Your task to perform on an android device: Check out the best rated electric trimmers on Lowe's Image 0: 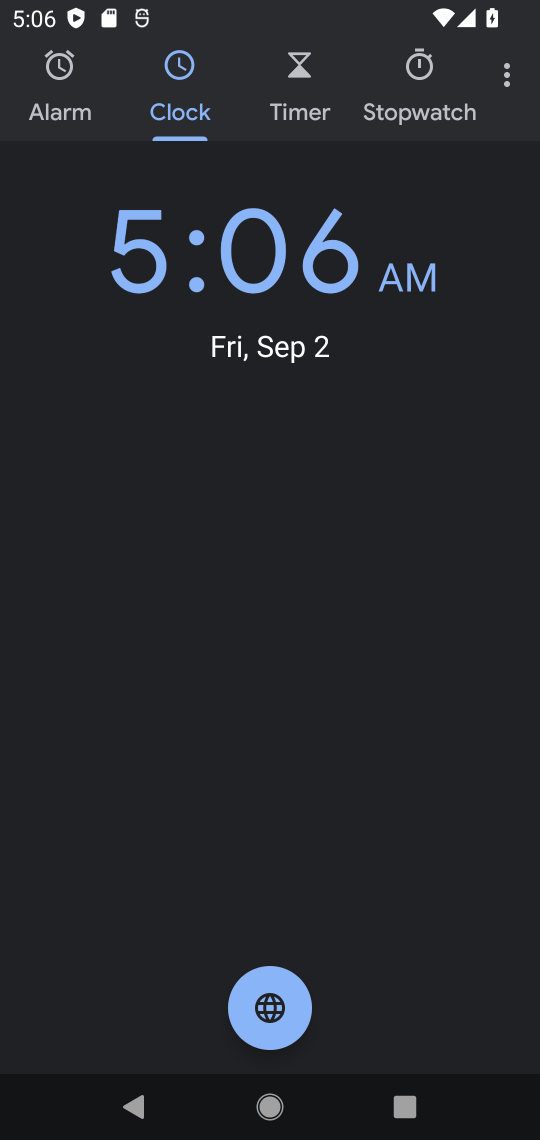
Step 0: press home button
Your task to perform on an android device: Check out the best rated electric trimmers on Lowe's Image 1: 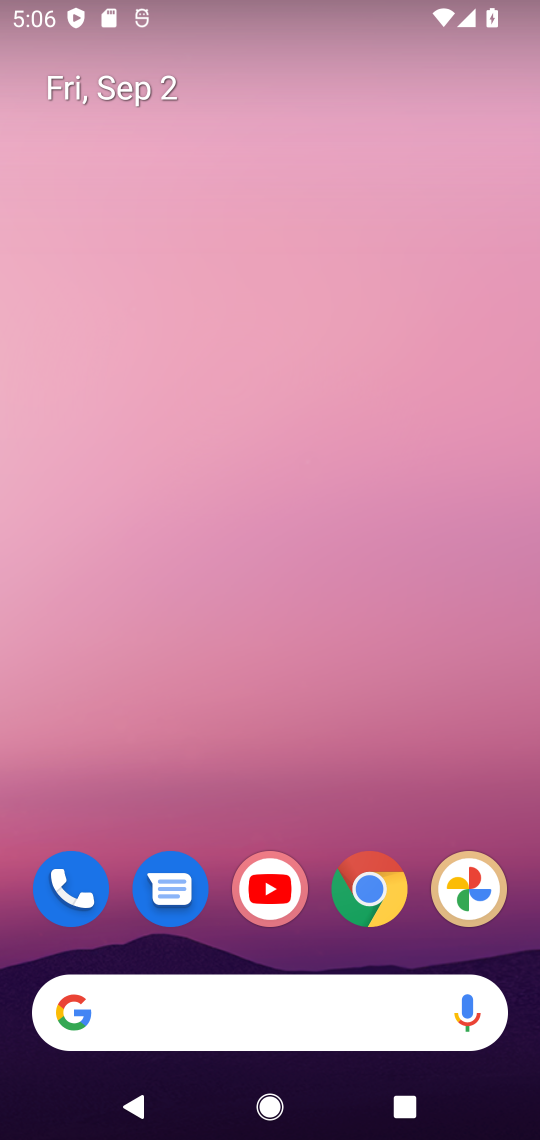
Step 1: click (350, 887)
Your task to perform on an android device: Check out the best rated electric trimmers on Lowe's Image 2: 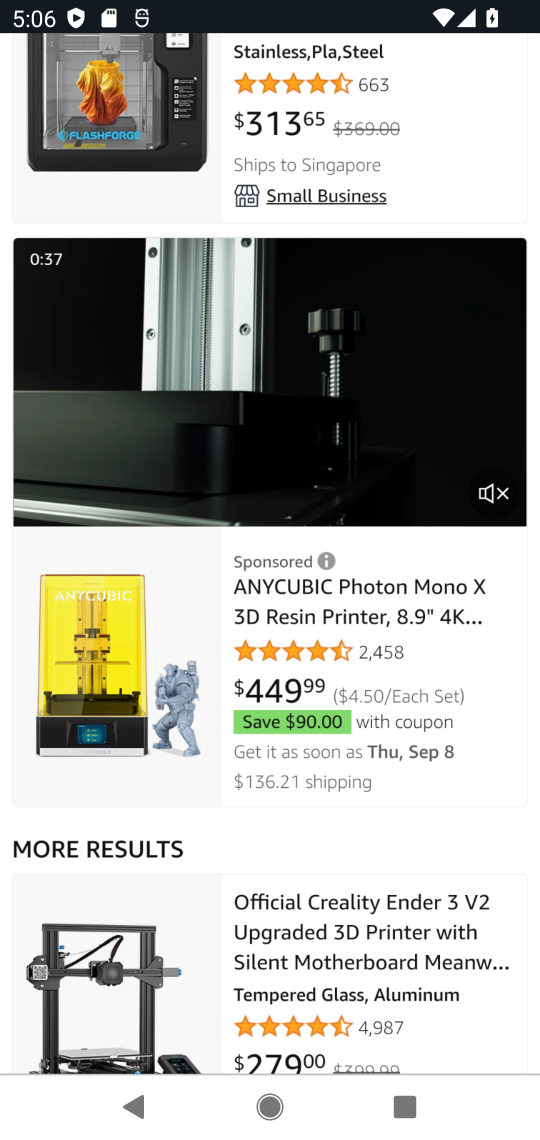
Step 2: drag from (422, 295) to (381, 758)
Your task to perform on an android device: Check out the best rated electric trimmers on Lowe's Image 3: 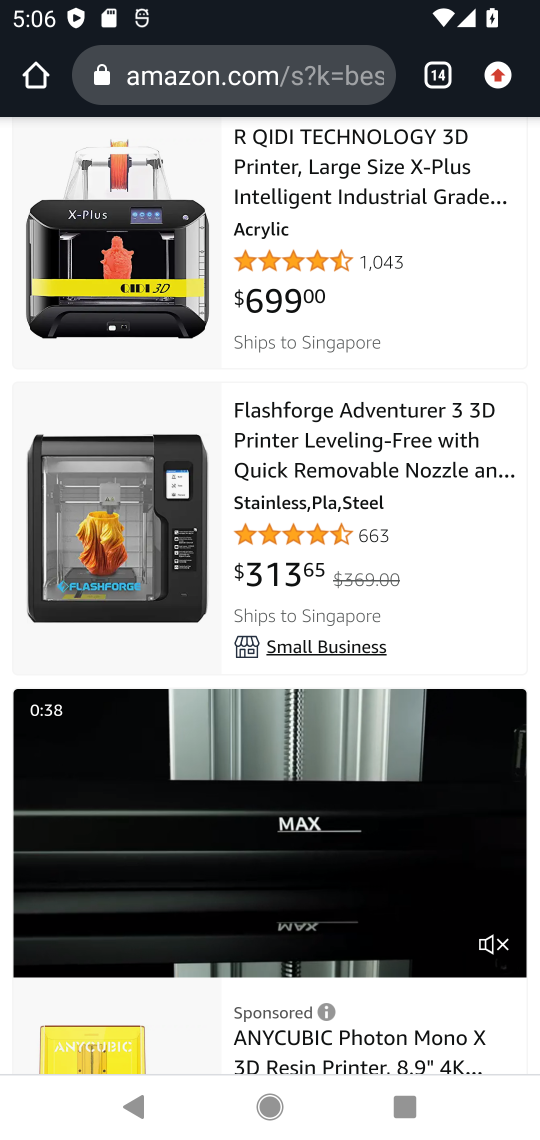
Step 3: click (441, 77)
Your task to perform on an android device: Check out the best rated electric trimmers on Lowe's Image 4: 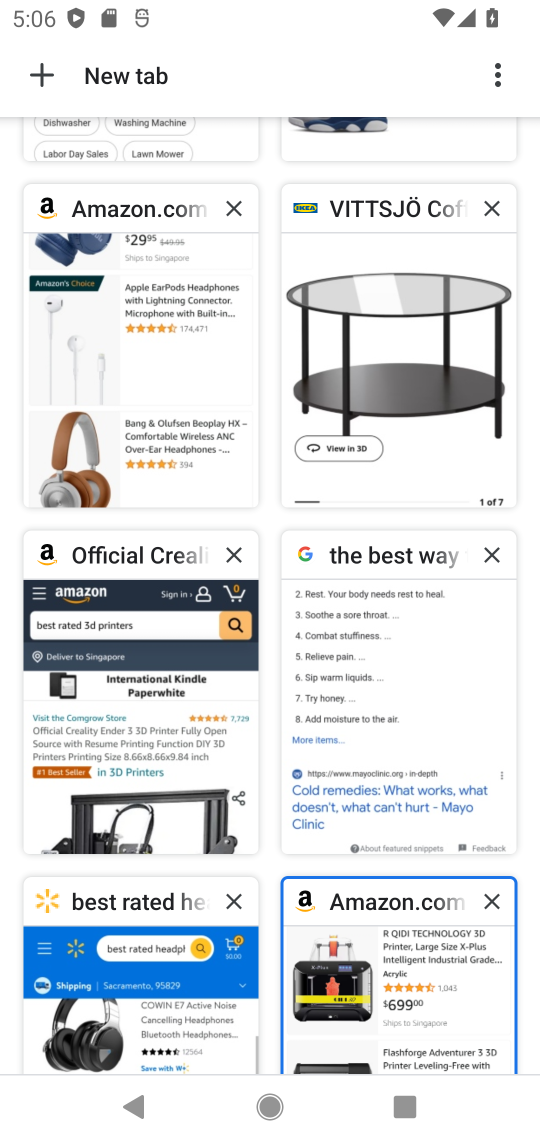
Step 4: click (39, 58)
Your task to perform on an android device: Check out the best rated electric trimmers on Lowe's Image 5: 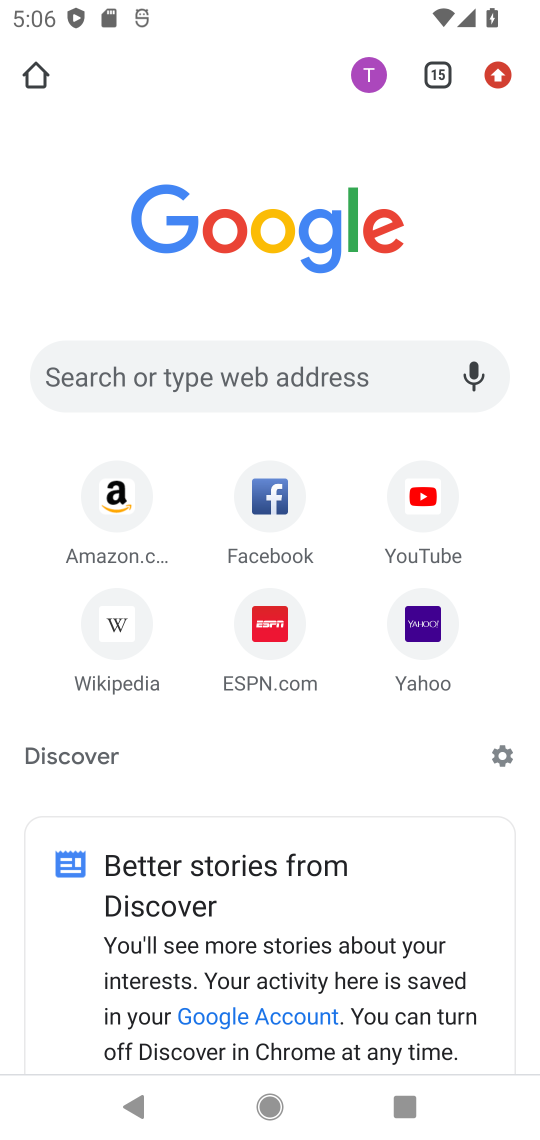
Step 5: type "Lowe's"
Your task to perform on an android device: Check out the best rated electric trimmers on Lowe's Image 6: 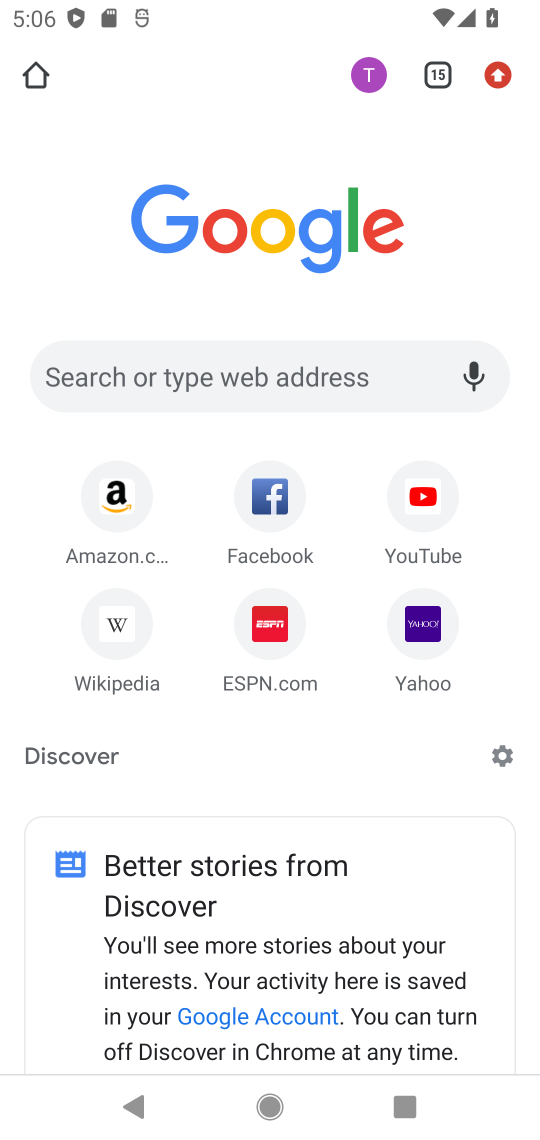
Step 6: type ""
Your task to perform on an android device: Check out the best rated electric trimmers on Lowe's Image 7: 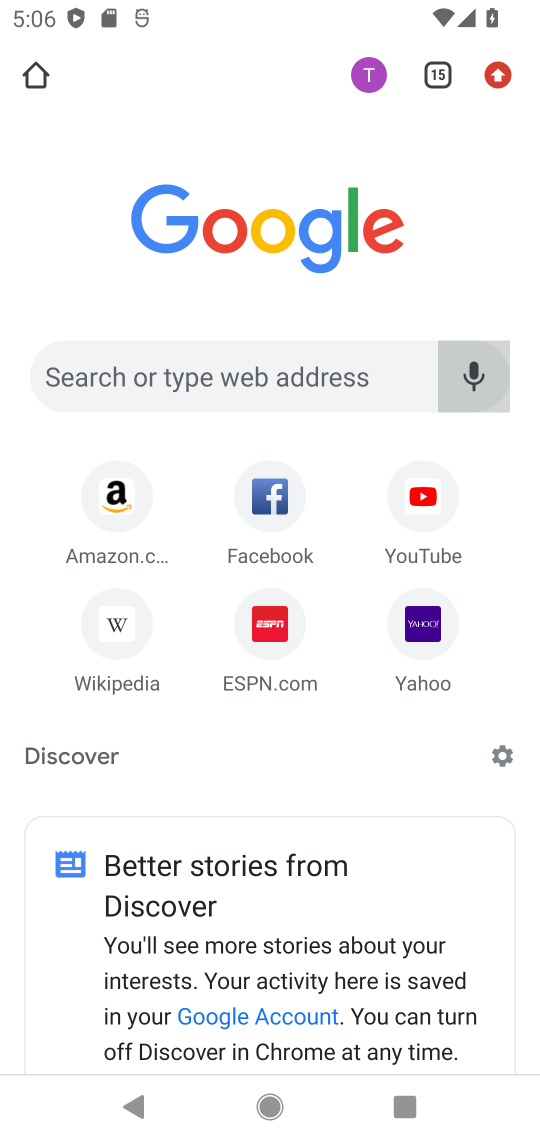
Step 7: click (240, 382)
Your task to perform on an android device: Check out the best rated electric trimmers on Lowe's Image 8: 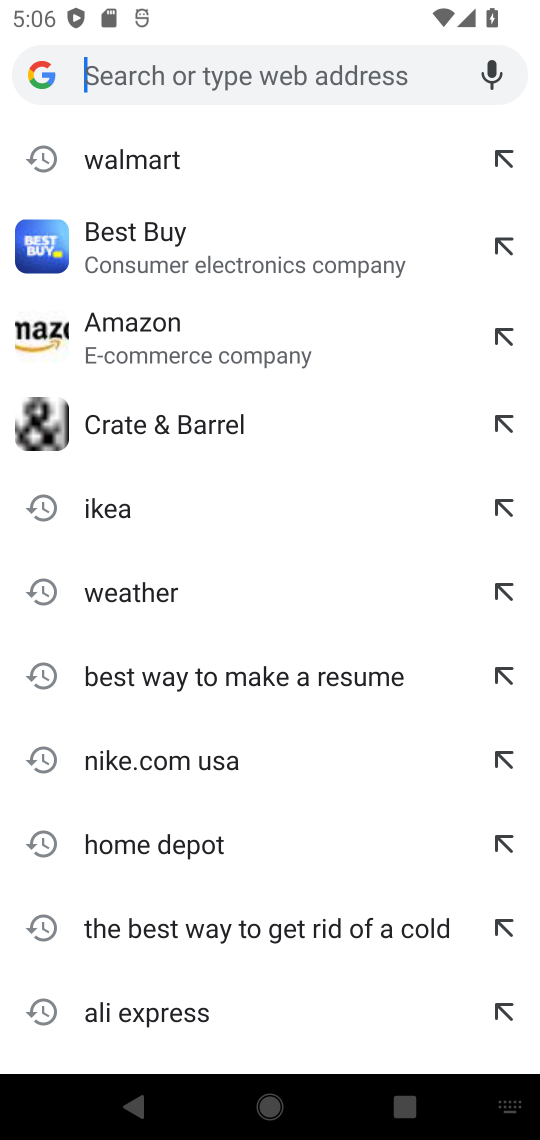
Step 8: type "Lowe's"
Your task to perform on an android device: Check out the best rated electric trimmers on Lowe's Image 9: 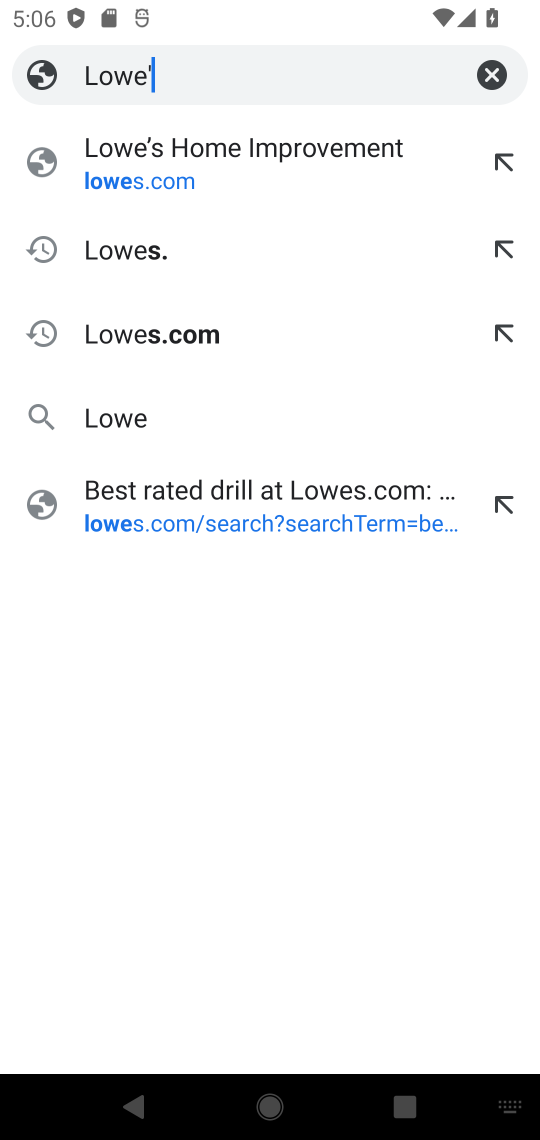
Step 9: type ""
Your task to perform on an android device: Check out the best rated electric trimmers on Lowe's Image 10: 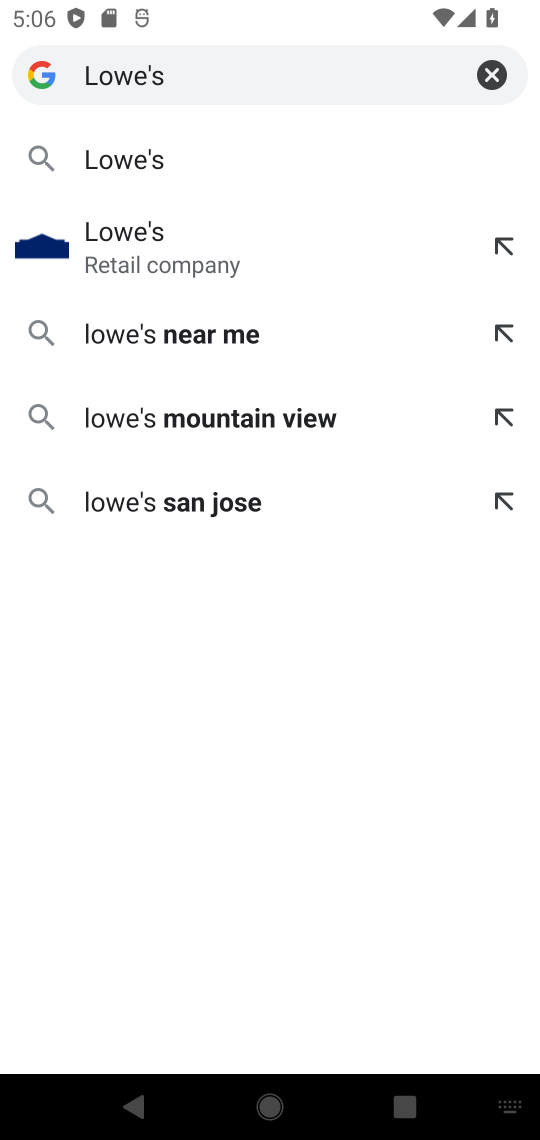
Step 10: click (187, 149)
Your task to perform on an android device: Check out the best rated electric trimmers on Lowe's Image 11: 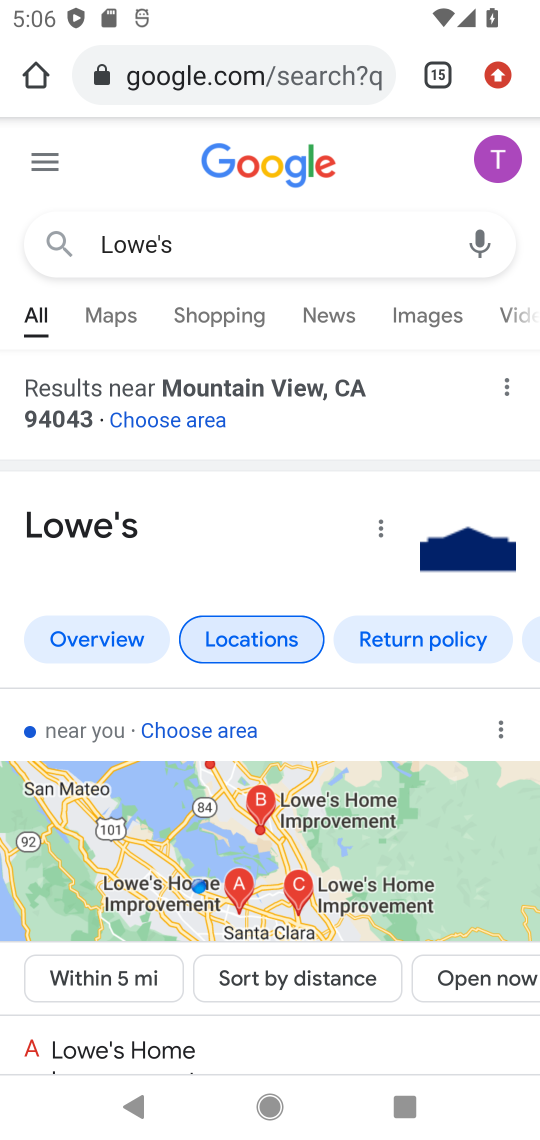
Step 11: drag from (336, 788) to (294, 291)
Your task to perform on an android device: Check out the best rated electric trimmers on Lowe's Image 12: 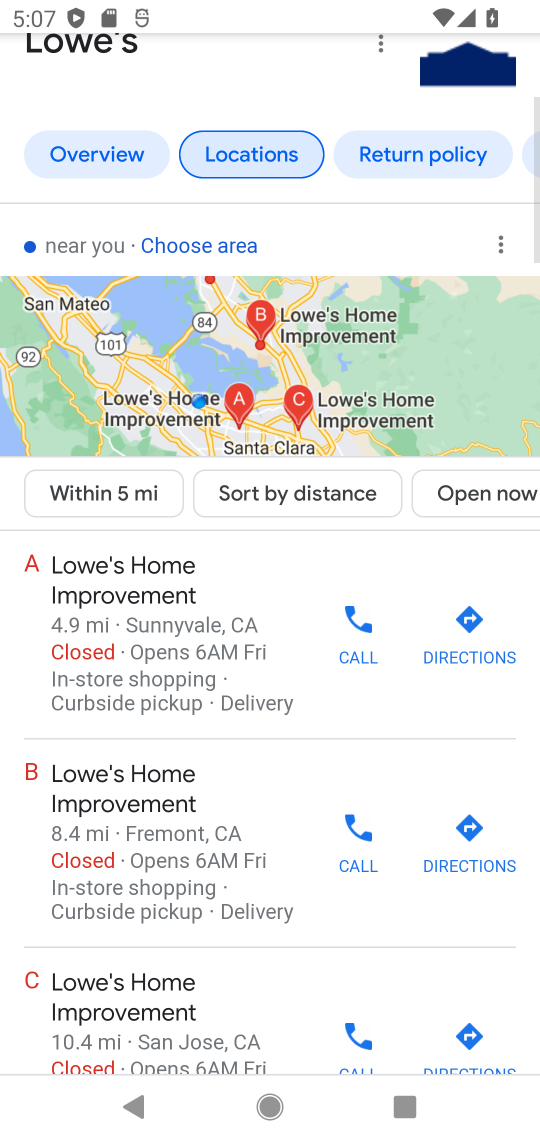
Step 12: drag from (256, 450) to (338, 242)
Your task to perform on an android device: Check out the best rated electric trimmers on Lowe's Image 13: 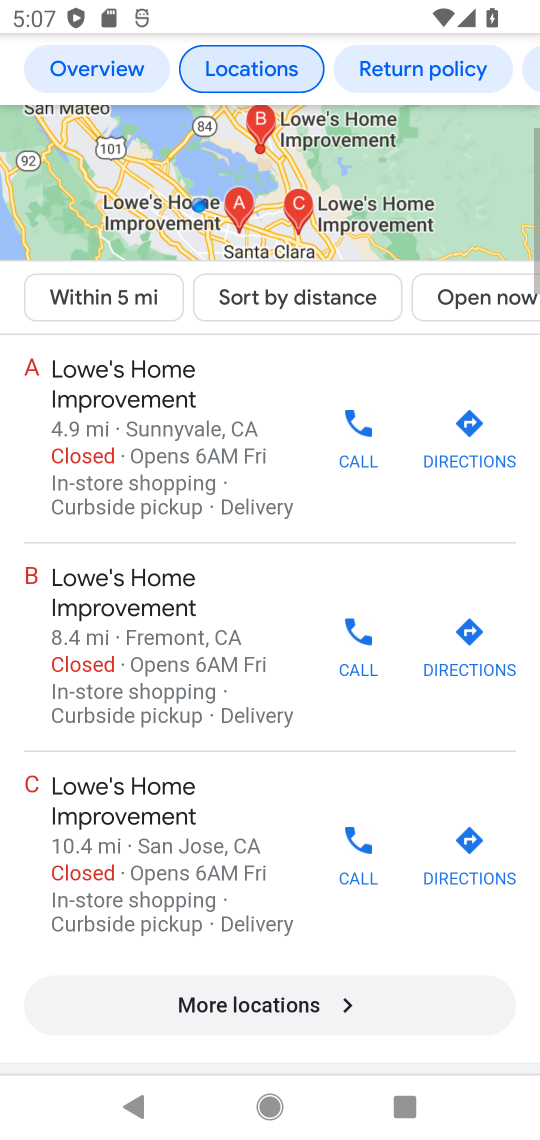
Step 13: drag from (275, 846) to (365, 309)
Your task to perform on an android device: Check out the best rated electric trimmers on Lowe's Image 14: 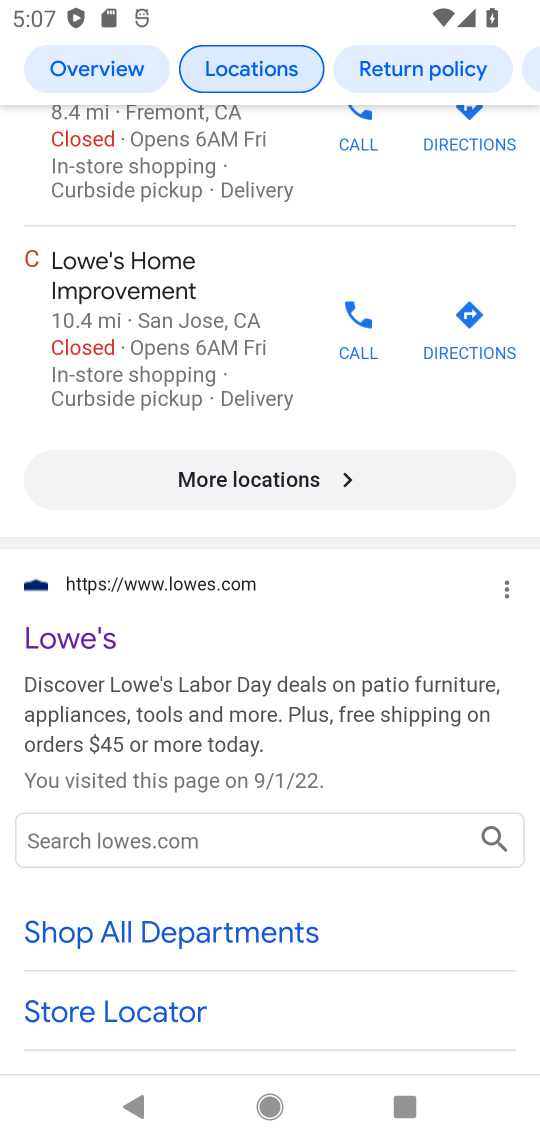
Step 14: click (96, 634)
Your task to perform on an android device: Check out the best rated electric trimmers on Lowe's Image 15: 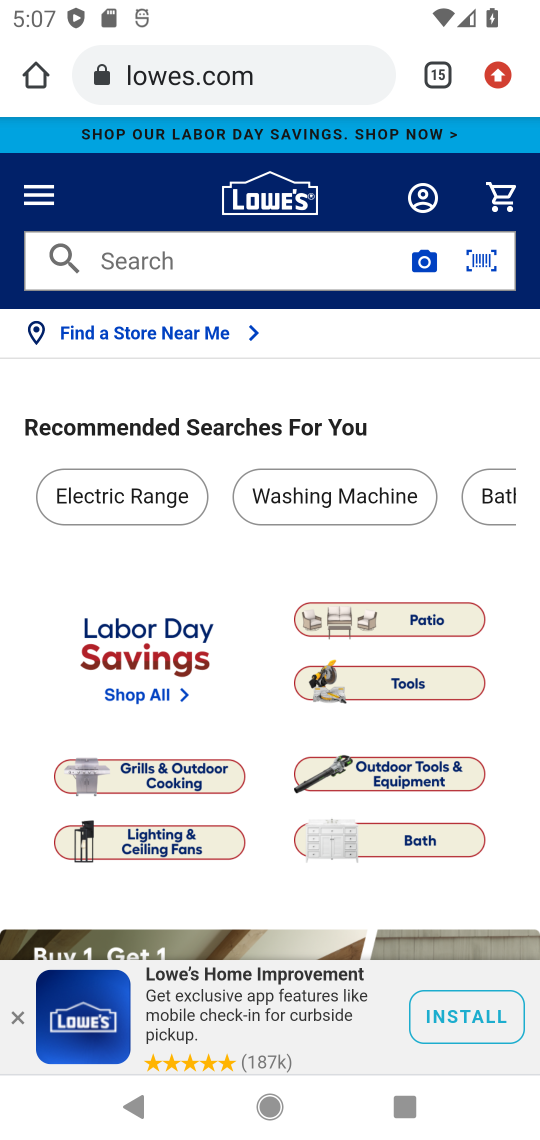
Step 15: click (162, 251)
Your task to perform on an android device: Check out the best rated electric trimmers on Lowe's Image 16: 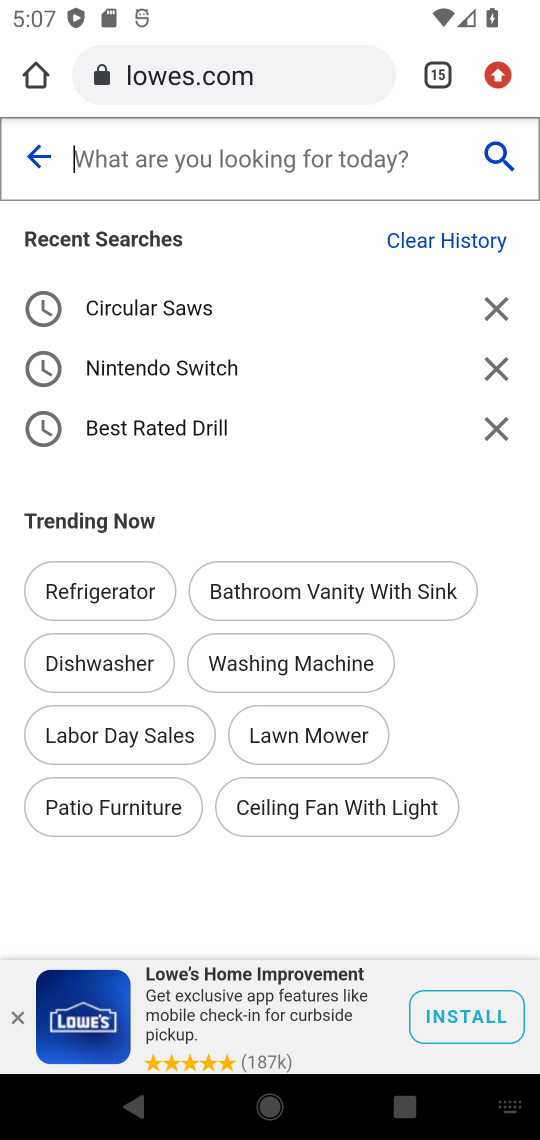
Step 16: type "best rated electric trimmer"
Your task to perform on an android device: Check out the best rated electric trimmers on Lowe's Image 17: 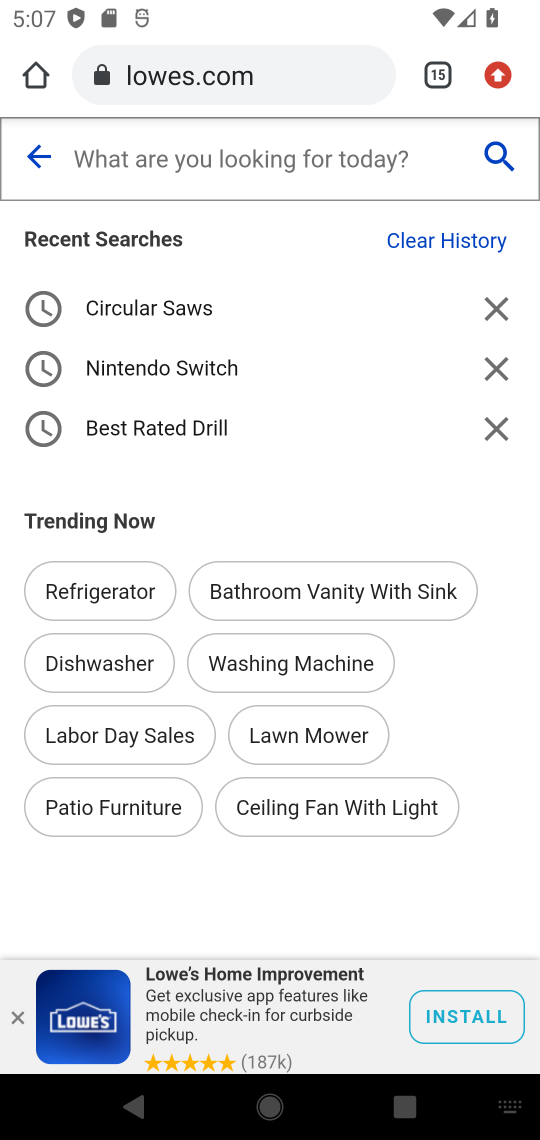
Step 17: type ""
Your task to perform on an android device: Check out the best rated electric trimmers on Lowe's Image 18: 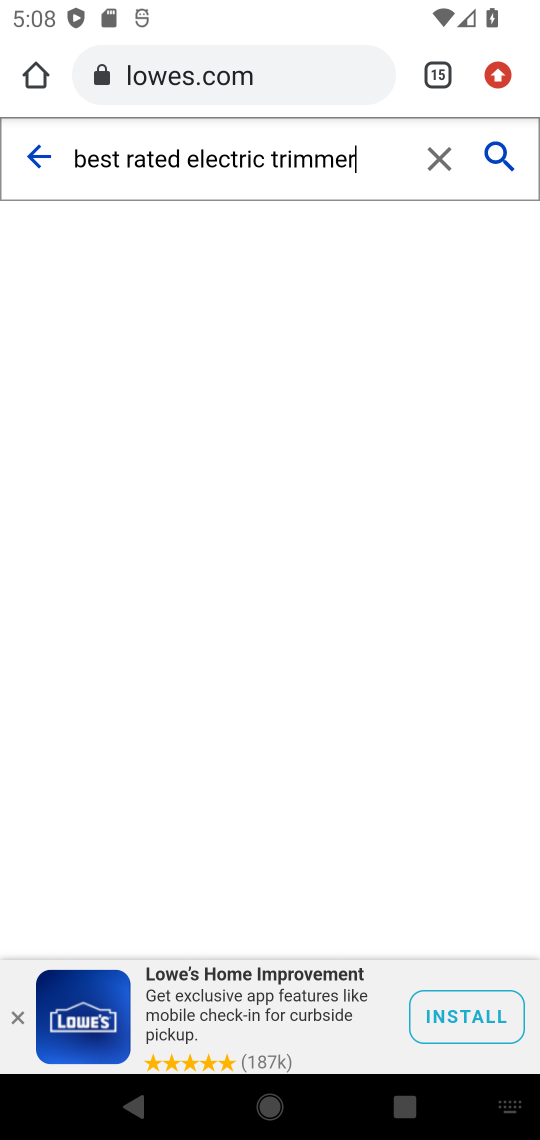
Step 18: click (498, 142)
Your task to perform on an android device: Check out the best rated electric trimmers on Lowe's Image 19: 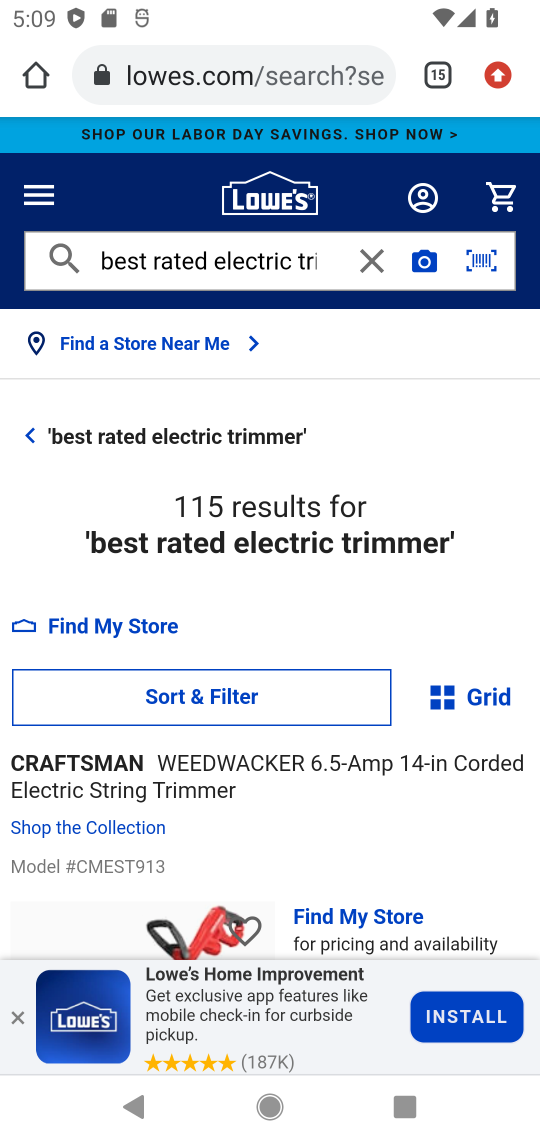
Step 19: task complete